Your task to perform on an android device: Go to internet settings Image 0: 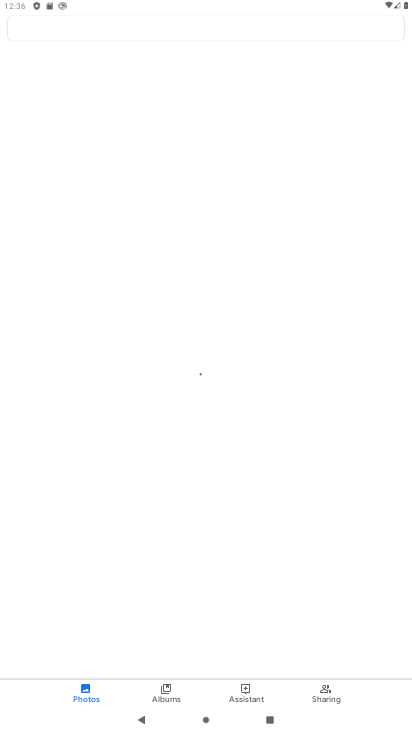
Step 0: press home button
Your task to perform on an android device: Go to internet settings Image 1: 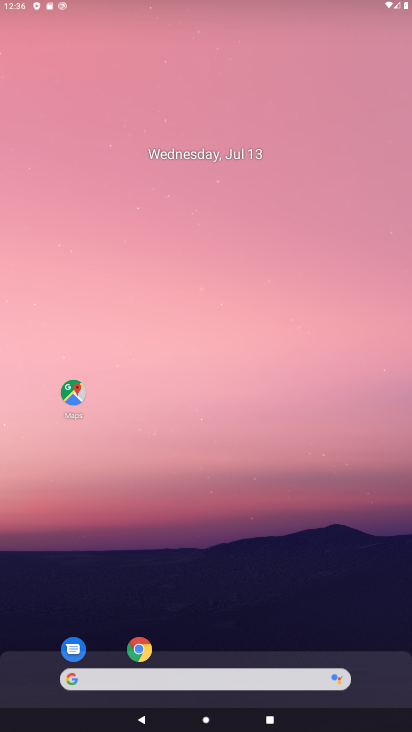
Step 1: drag from (239, 674) to (324, 163)
Your task to perform on an android device: Go to internet settings Image 2: 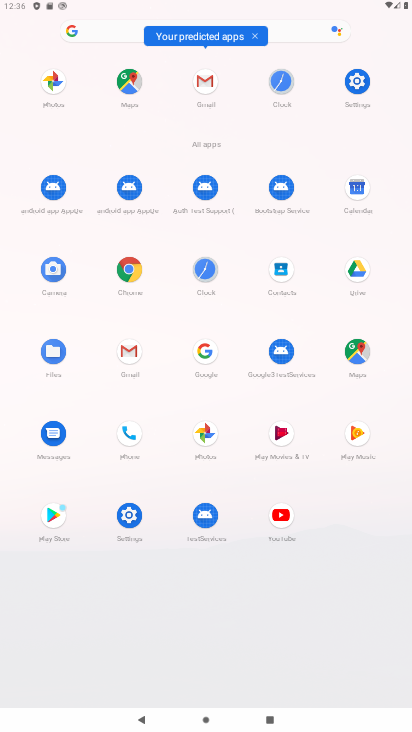
Step 2: click (129, 508)
Your task to perform on an android device: Go to internet settings Image 3: 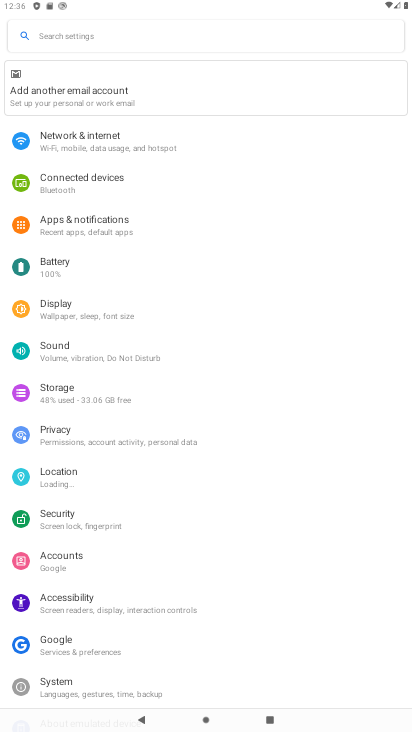
Step 3: drag from (156, 94) to (156, 348)
Your task to perform on an android device: Go to internet settings Image 4: 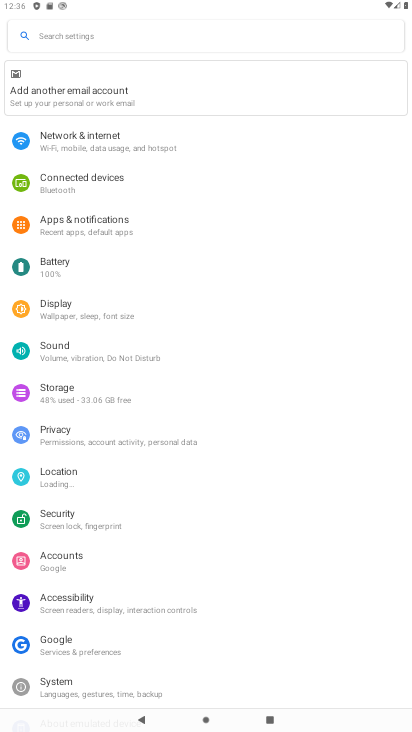
Step 4: click (152, 153)
Your task to perform on an android device: Go to internet settings Image 5: 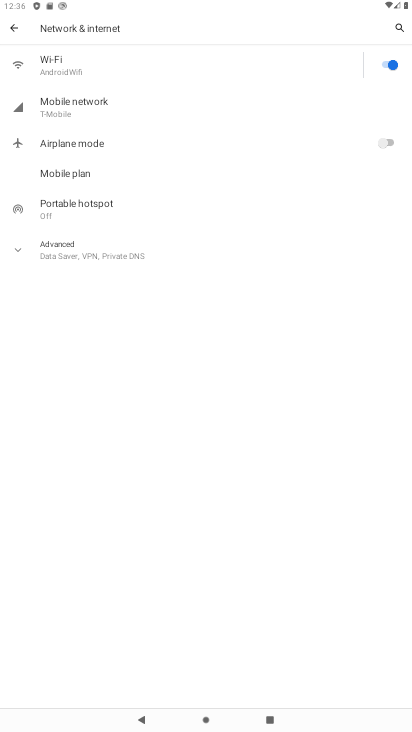
Step 5: click (116, 109)
Your task to perform on an android device: Go to internet settings Image 6: 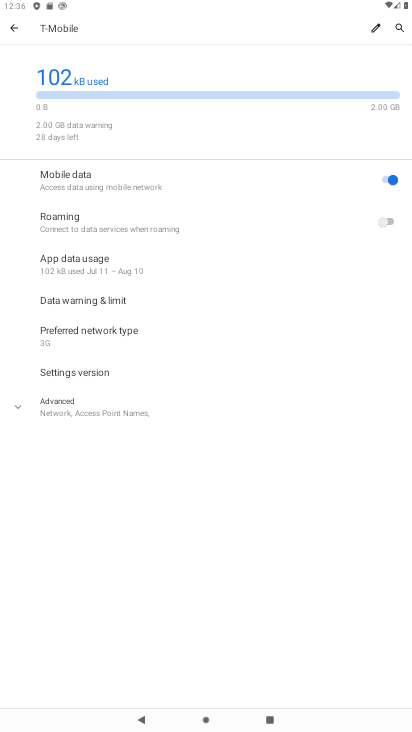
Step 6: task complete